Your task to perform on an android device: What is the recent news? Image 0: 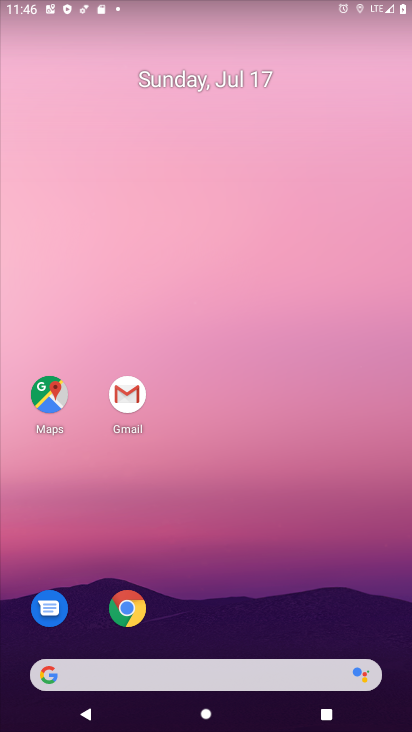
Step 0: click (223, 652)
Your task to perform on an android device: What is the recent news? Image 1: 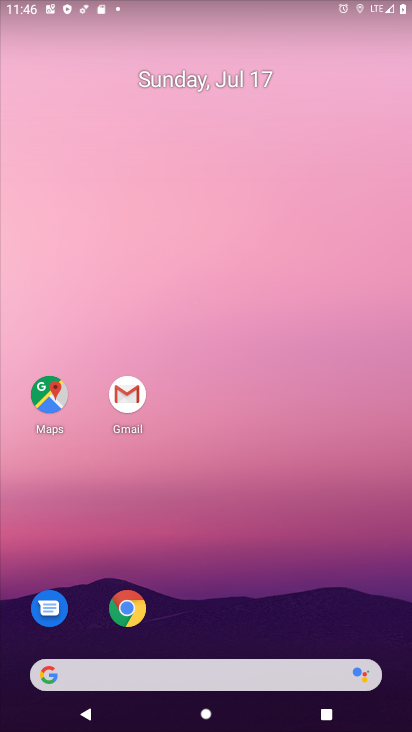
Step 1: click (225, 669)
Your task to perform on an android device: What is the recent news? Image 2: 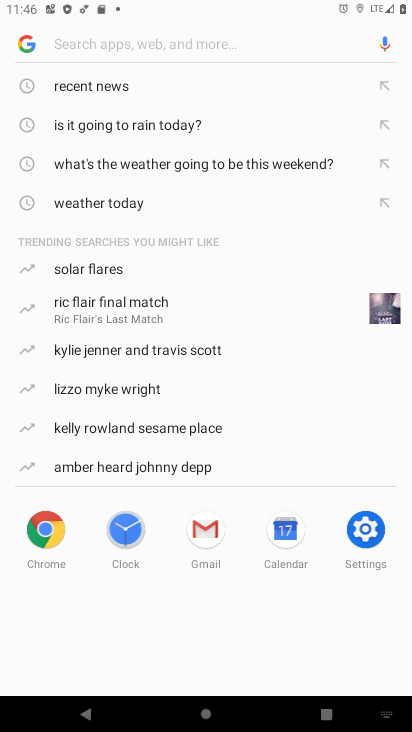
Step 2: click (111, 68)
Your task to perform on an android device: What is the recent news? Image 3: 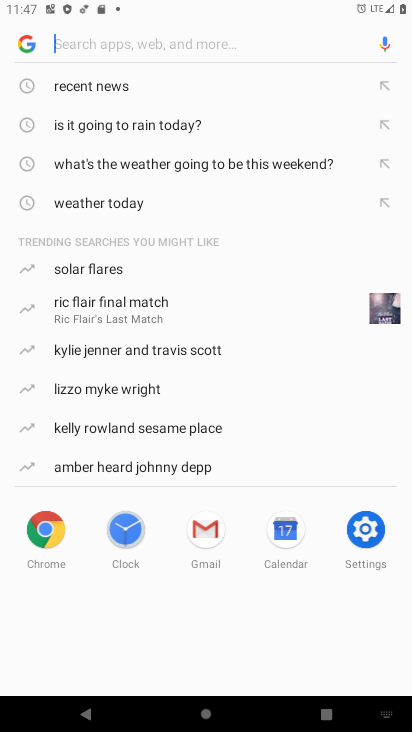
Step 3: click (81, 86)
Your task to perform on an android device: What is the recent news? Image 4: 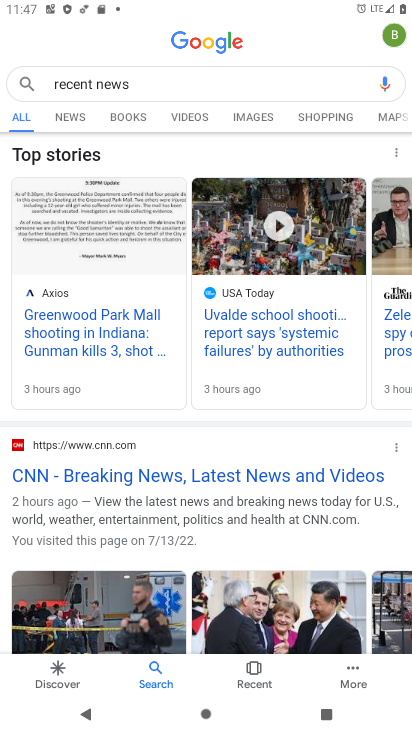
Step 4: click (78, 114)
Your task to perform on an android device: What is the recent news? Image 5: 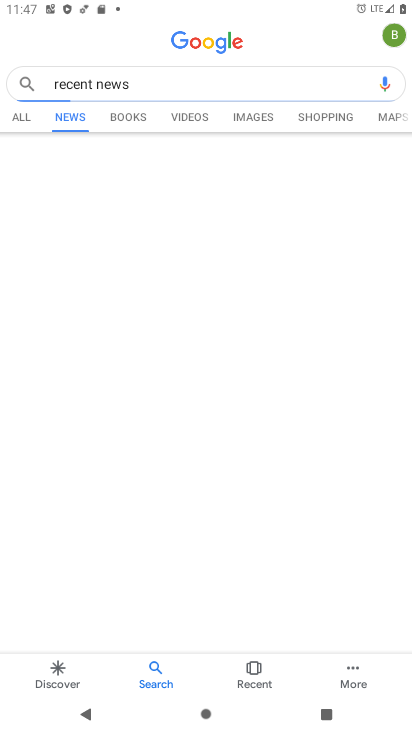
Step 5: task complete